Your task to perform on an android device: turn off javascript in the chrome app Image 0: 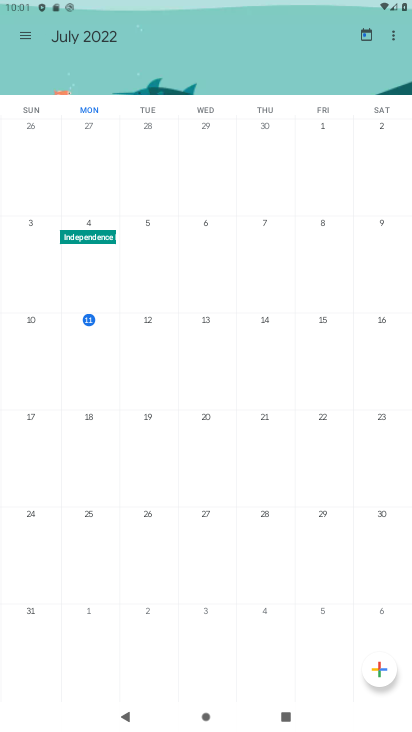
Step 0: press home button
Your task to perform on an android device: turn off javascript in the chrome app Image 1: 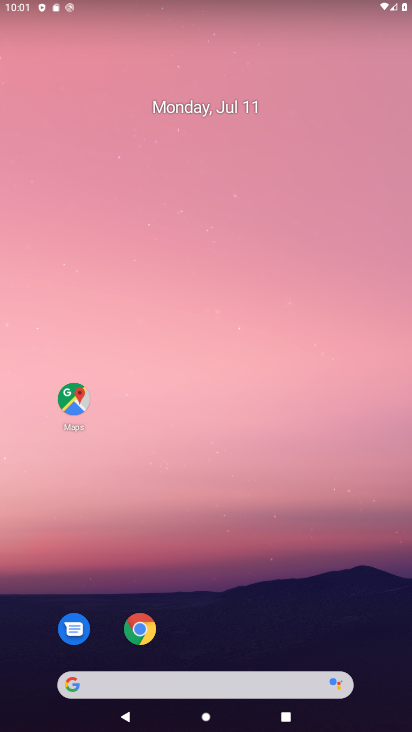
Step 1: click (150, 634)
Your task to perform on an android device: turn off javascript in the chrome app Image 2: 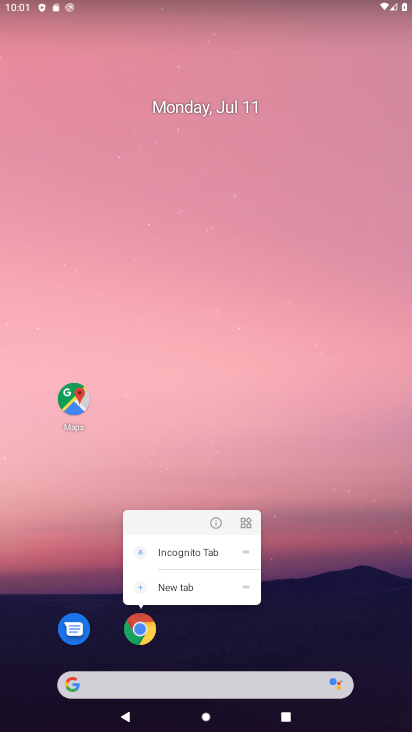
Step 2: click (150, 634)
Your task to perform on an android device: turn off javascript in the chrome app Image 3: 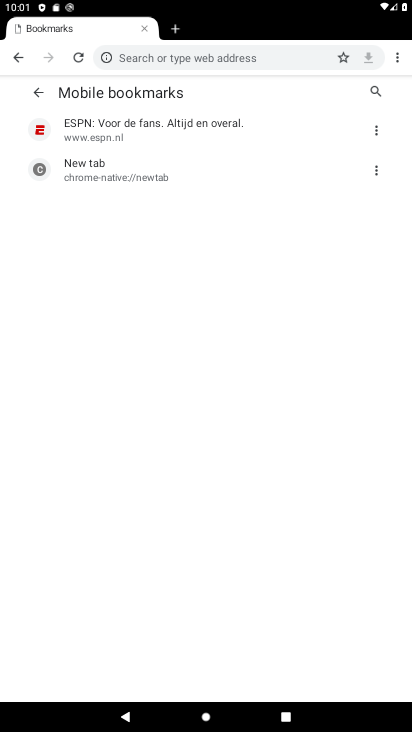
Step 3: click (392, 56)
Your task to perform on an android device: turn off javascript in the chrome app Image 4: 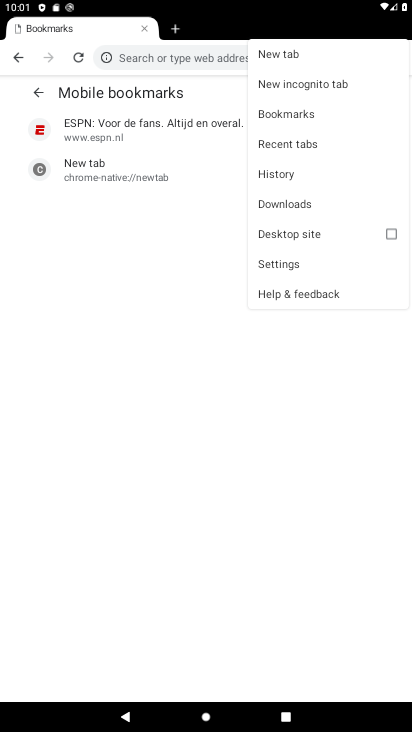
Step 4: click (298, 259)
Your task to perform on an android device: turn off javascript in the chrome app Image 5: 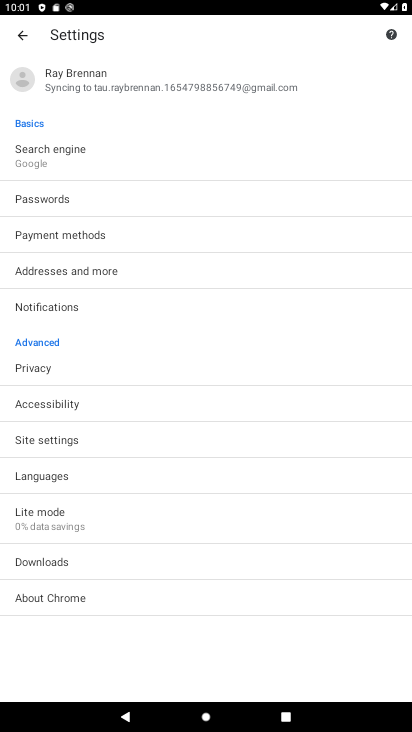
Step 5: click (80, 448)
Your task to perform on an android device: turn off javascript in the chrome app Image 6: 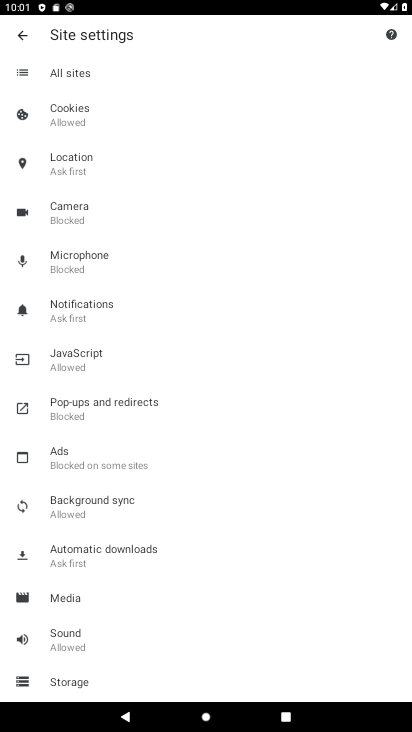
Step 6: click (122, 348)
Your task to perform on an android device: turn off javascript in the chrome app Image 7: 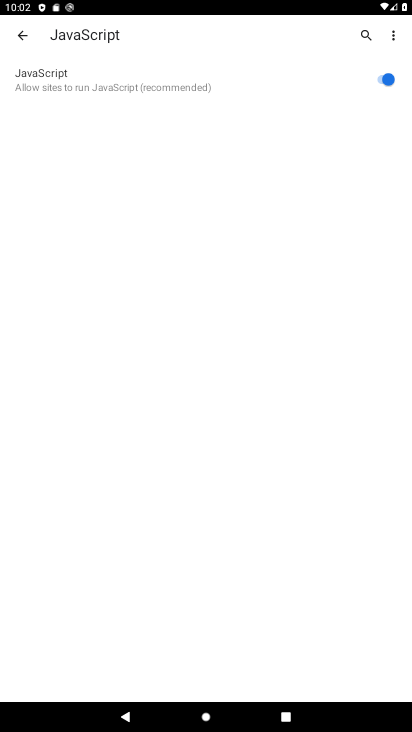
Step 7: click (380, 80)
Your task to perform on an android device: turn off javascript in the chrome app Image 8: 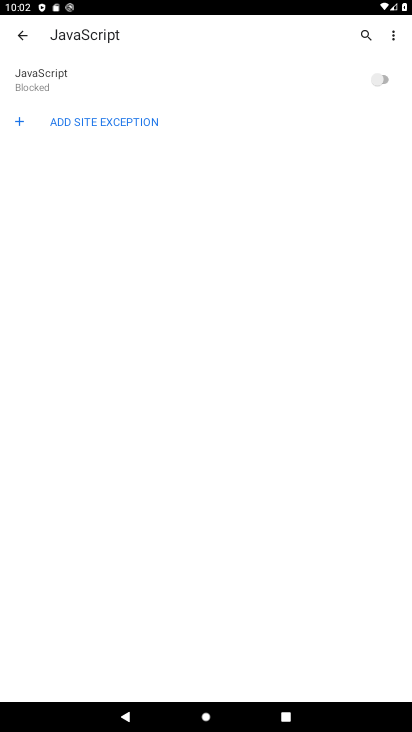
Step 8: task complete